Your task to perform on an android device: Open Chrome and go to settings Image 0: 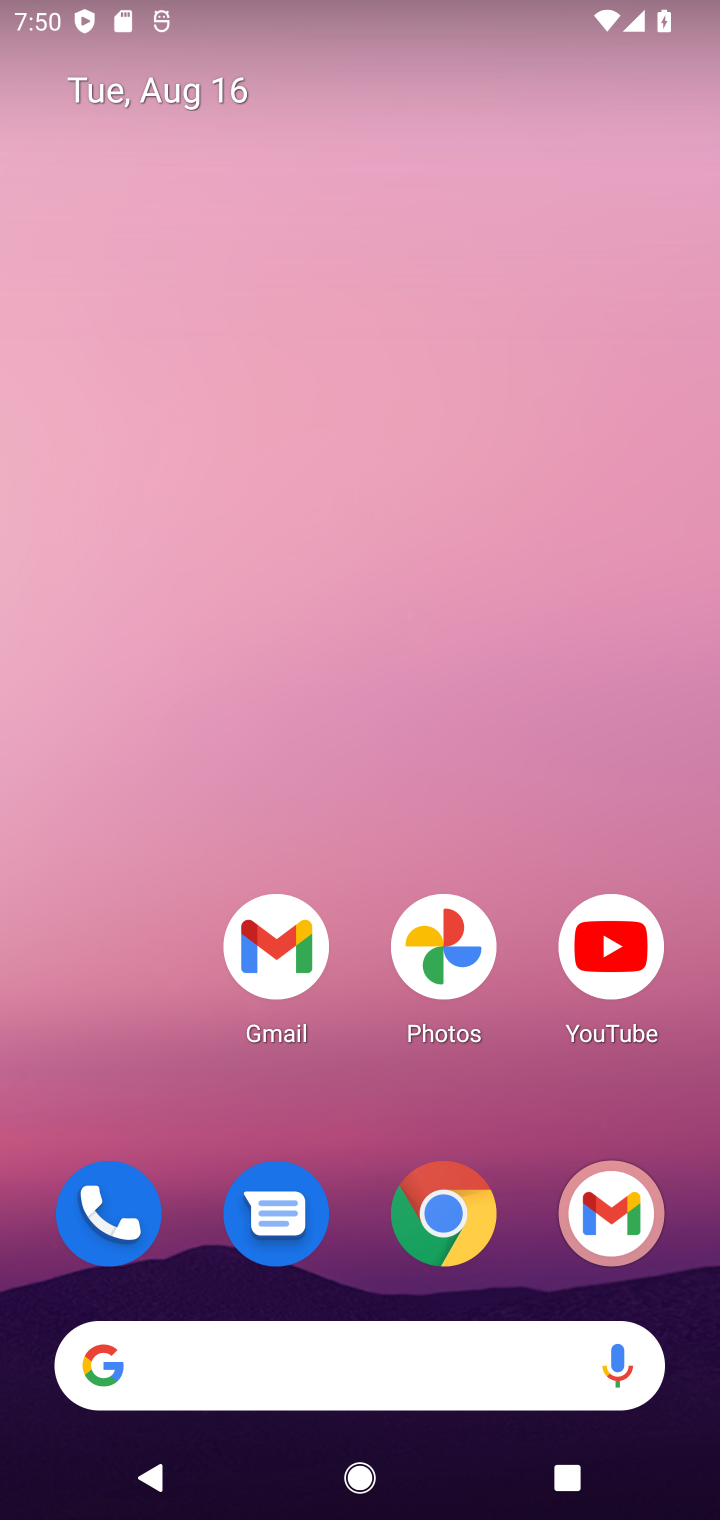
Step 0: drag from (343, 1260) to (347, 471)
Your task to perform on an android device: Open Chrome and go to settings Image 1: 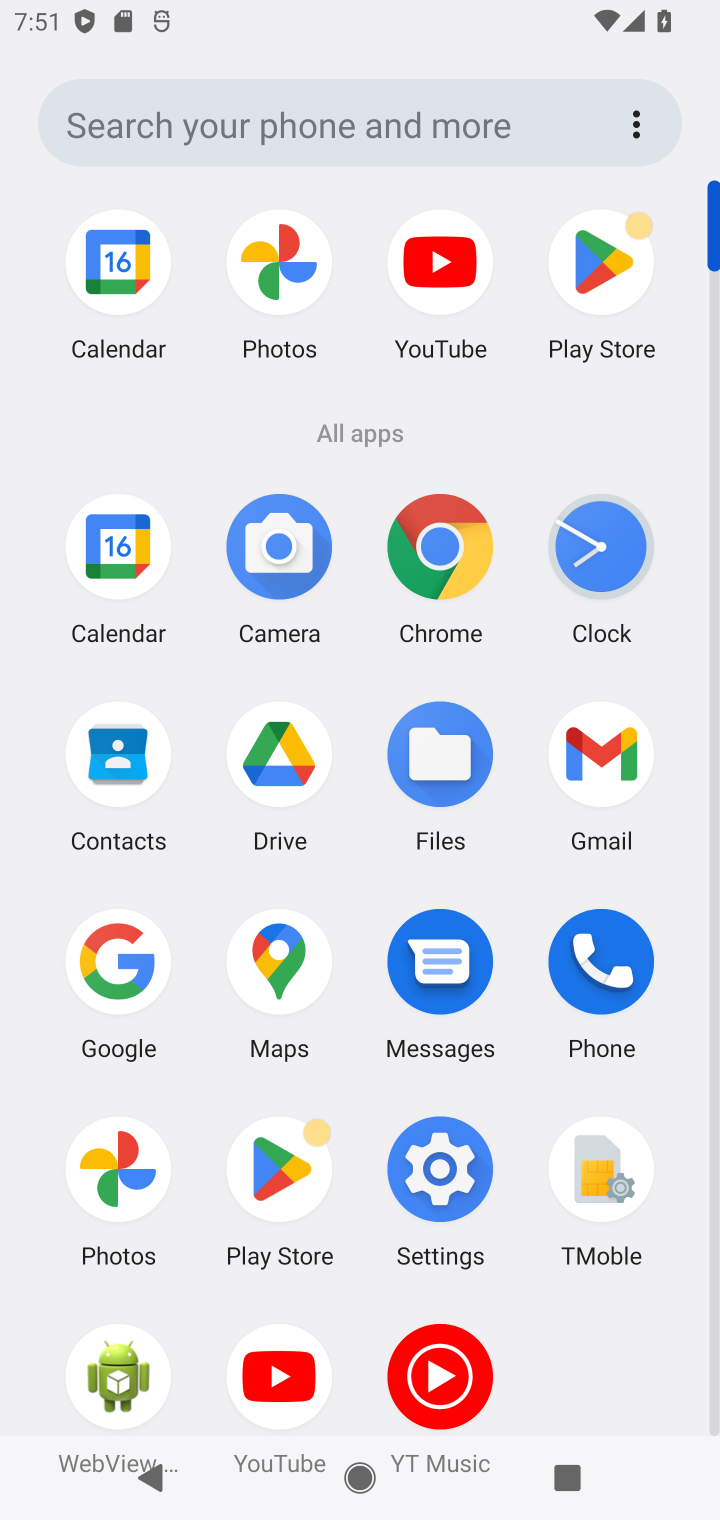
Step 1: click (410, 1145)
Your task to perform on an android device: Open Chrome and go to settings Image 2: 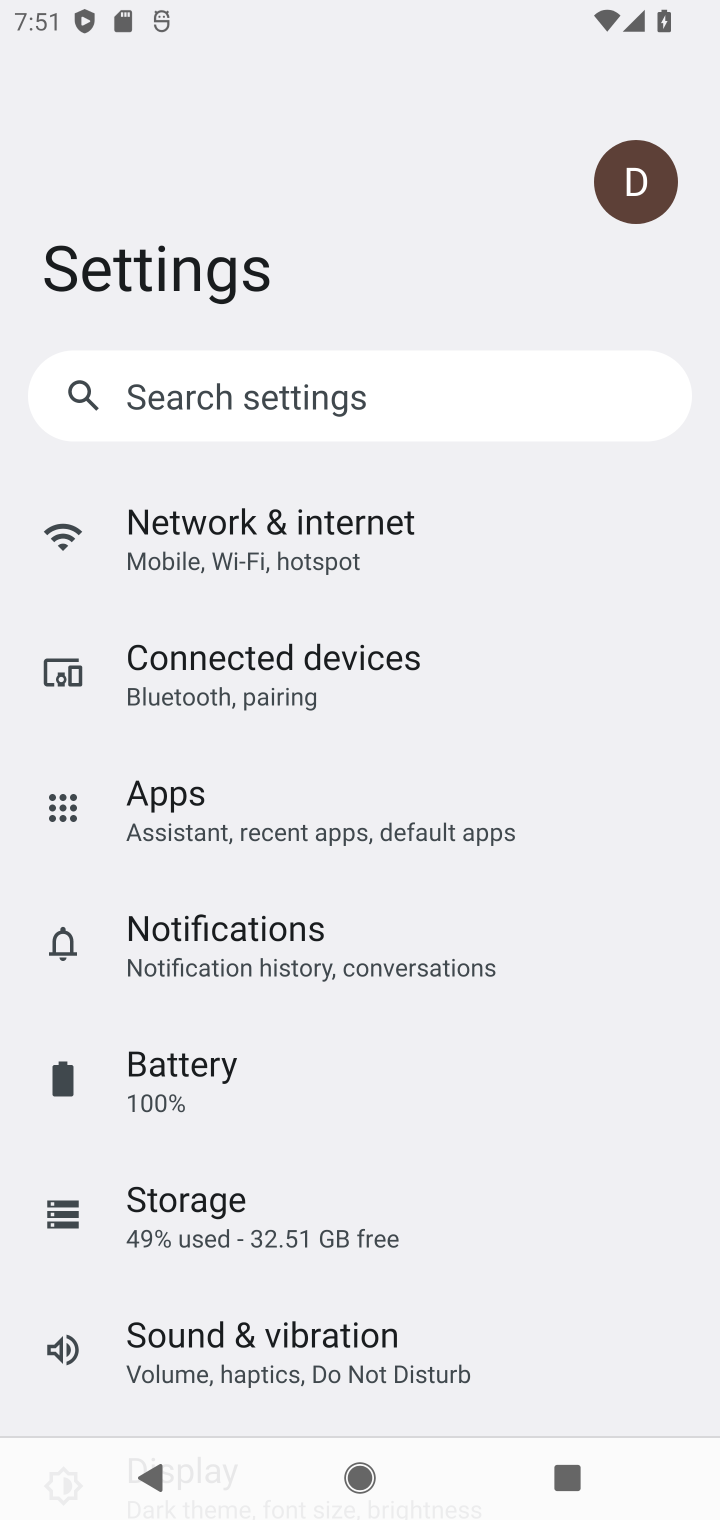
Step 2: task complete